Your task to perform on an android device: turn off improve location accuracy Image 0: 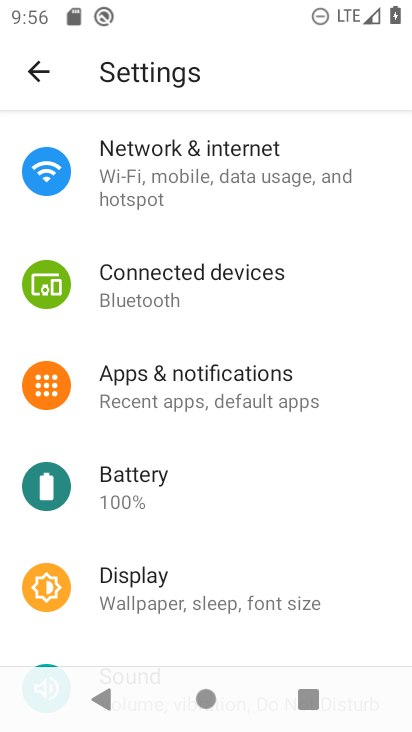
Step 0: drag from (287, 547) to (284, 90)
Your task to perform on an android device: turn off improve location accuracy Image 1: 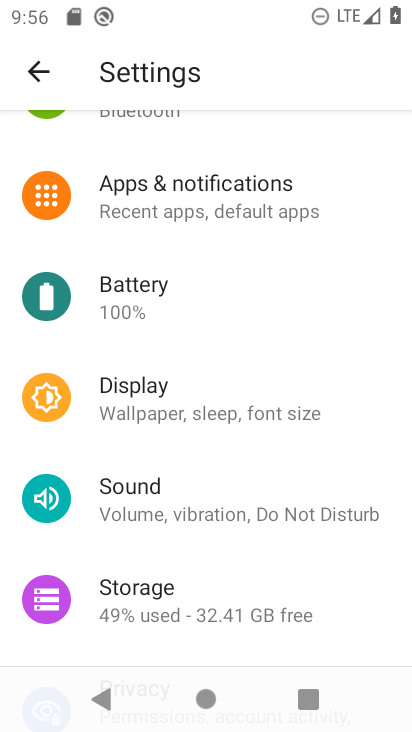
Step 1: drag from (266, 513) to (302, 80)
Your task to perform on an android device: turn off improve location accuracy Image 2: 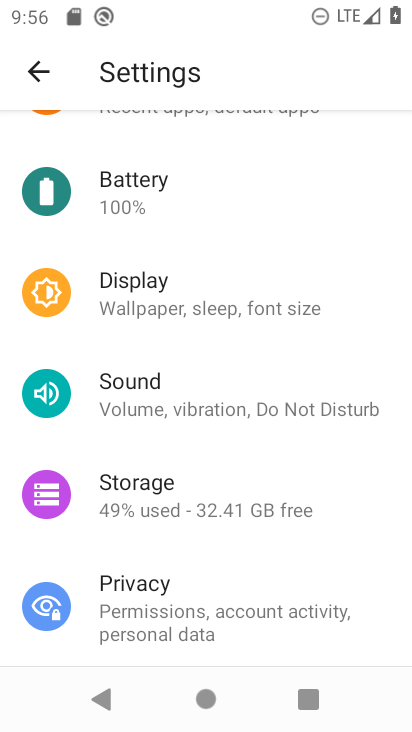
Step 2: drag from (229, 620) to (240, 34)
Your task to perform on an android device: turn off improve location accuracy Image 3: 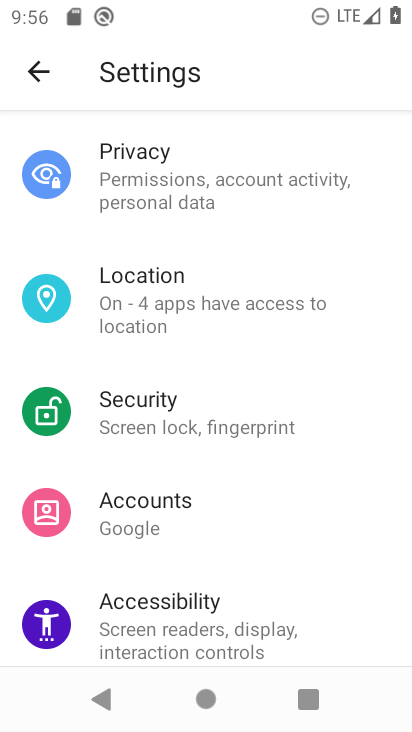
Step 3: drag from (201, 647) to (174, 38)
Your task to perform on an android device: turn off improve location accuracy Image 4: 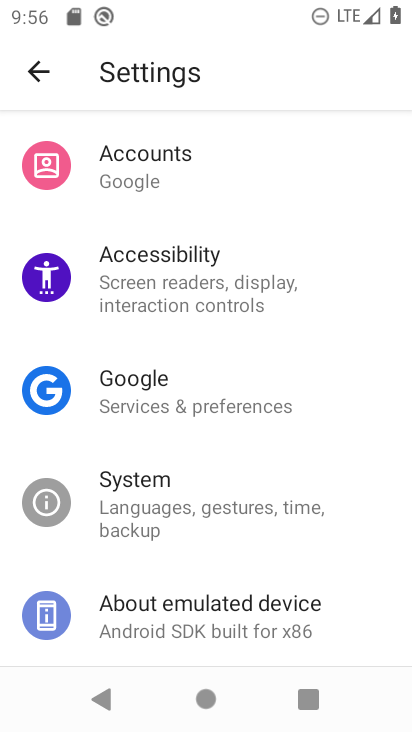
Step 4: drag from (355, 163) to (334, 495)
Your task to perform on an android device: turn off improve location accuracy Image 5: 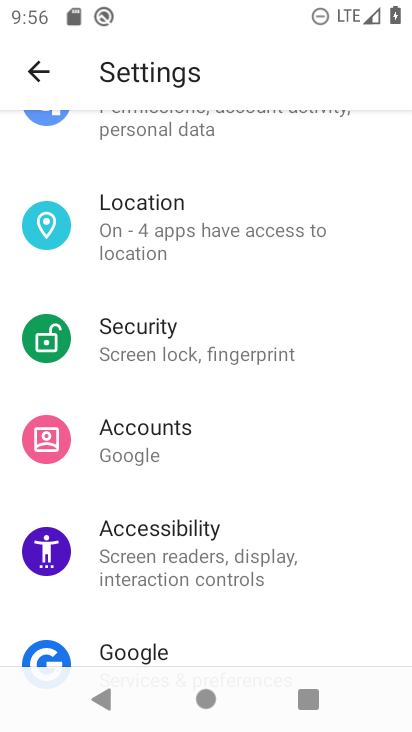
Step 5: click (251, 215)
Your task to perform on an android device: turn off improve location accuracy Image 6: 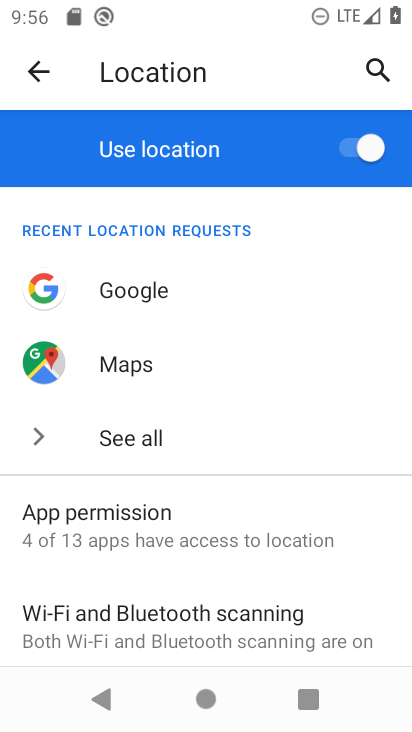
Step 6: drag from (272, 545) to (280, 0)
Your task to perform on an android device: turn off improve location accuracy Image 7: 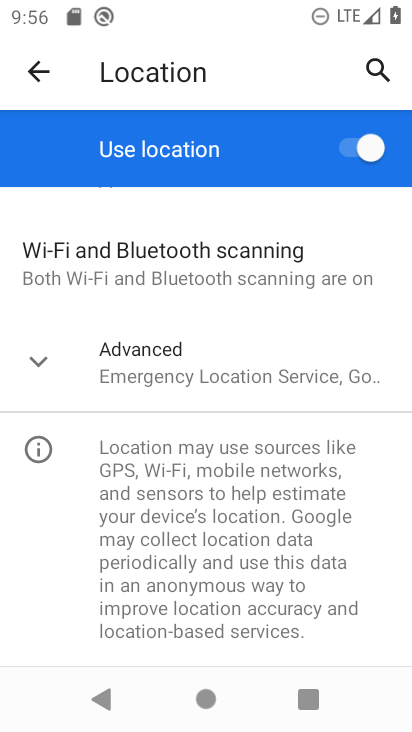
Step 7: click (280, 371)
Your task to perform on an android device: turn off improve location accuracy Image 8: 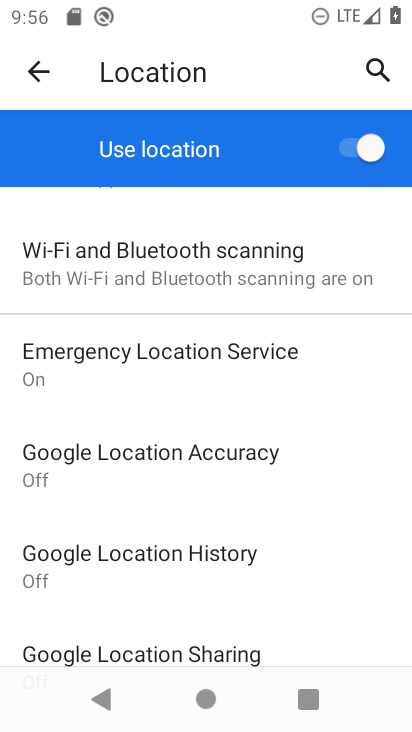
Step 8: click (216, 457)
Your task to perform on an android device: turn off improve location accuracy Image 9: 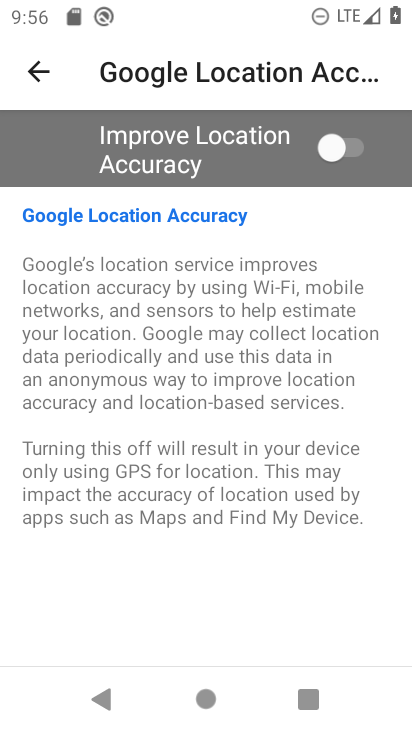
Step 9: task complete